Your task to perform on an android device: open app "Roku - Official Remote Control" Image 0: 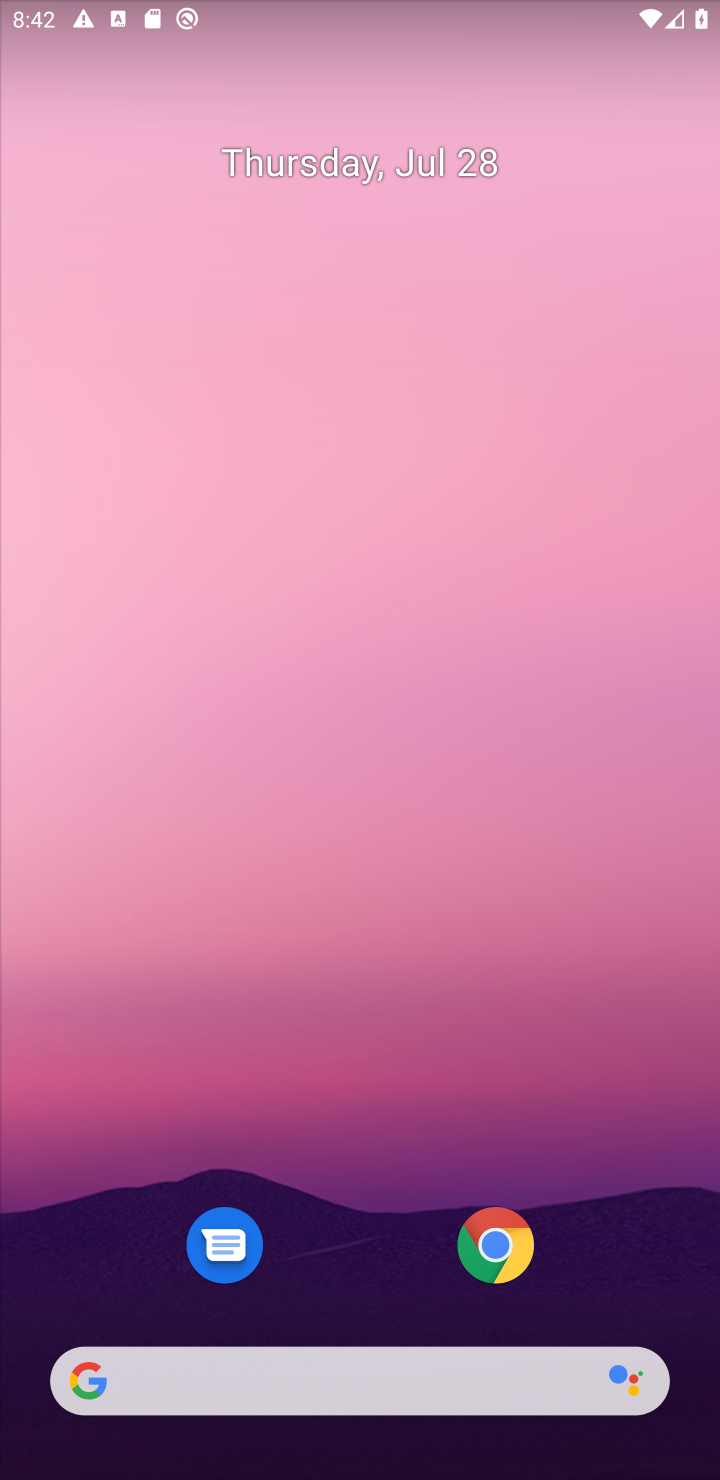
Step 0: drag from (350, 1257) to (566, 39)
Your task to perform on an android device: open app "Roku - Official Remote Control" Image 1: 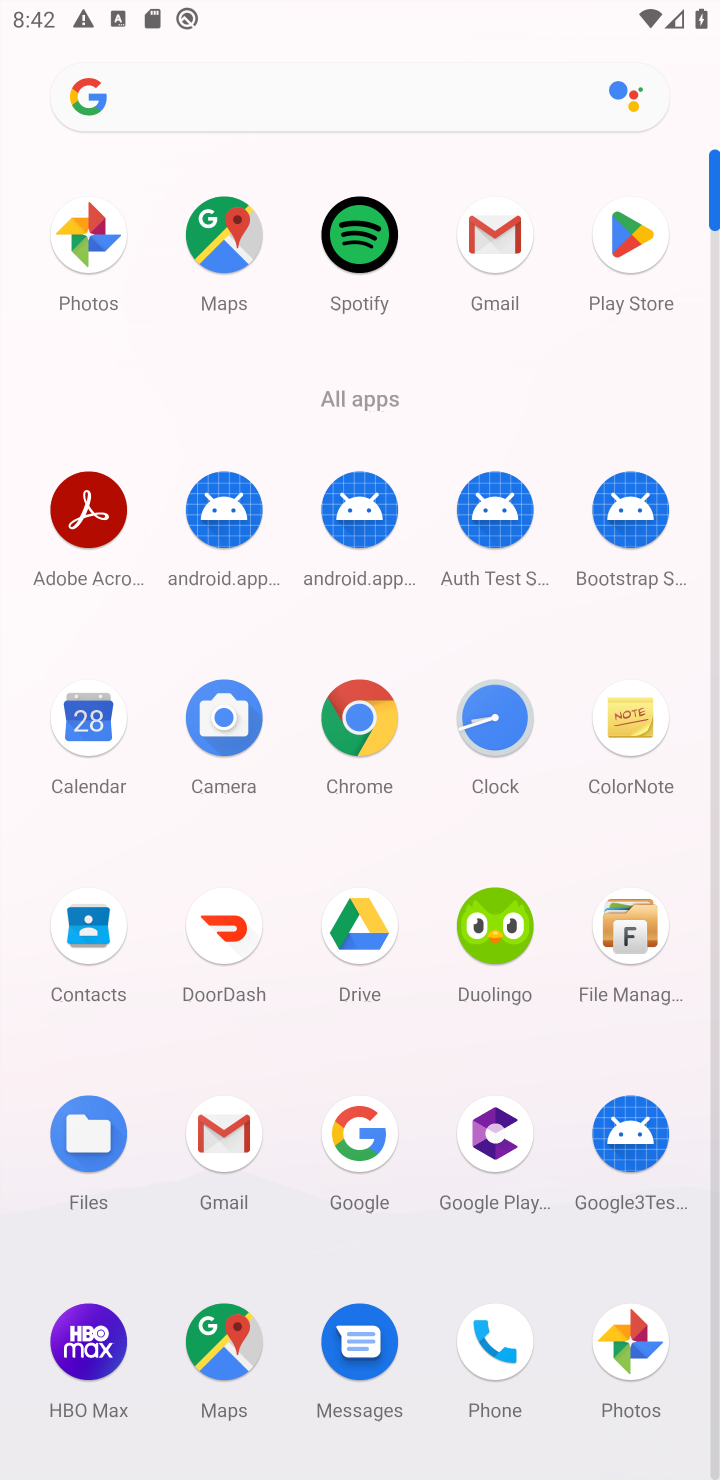
Step 1: click (634, 225)
Your task to perform on an android device: open app "Roku - Official Remote Control" Image 2: 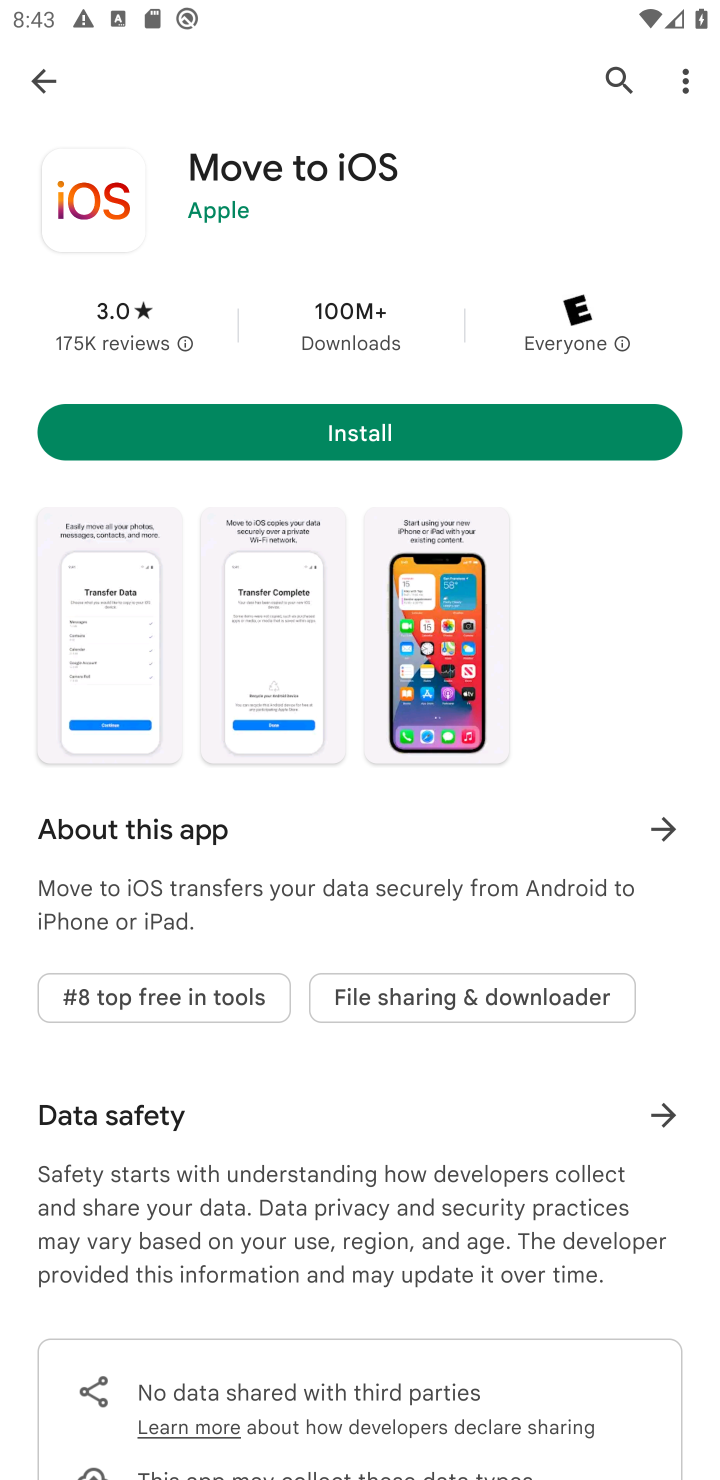
Step 2: click (598, 86)
Your task to perform on an android device: open app "Roku - Official Remote Control" Image 3: 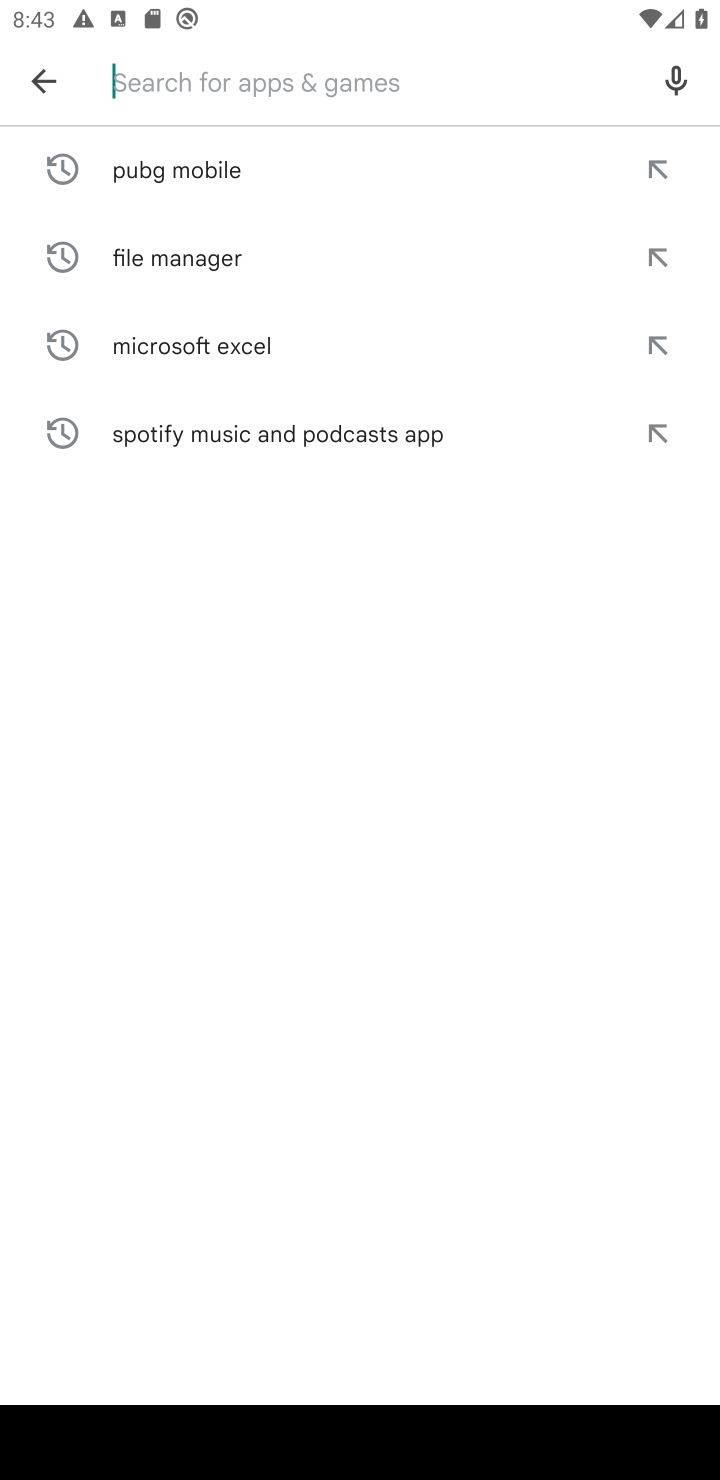
Step 3: type "Roku - Offical remote control"
Your task to perform on an android device: open app "Roku - Official Remote Control" Image 4: 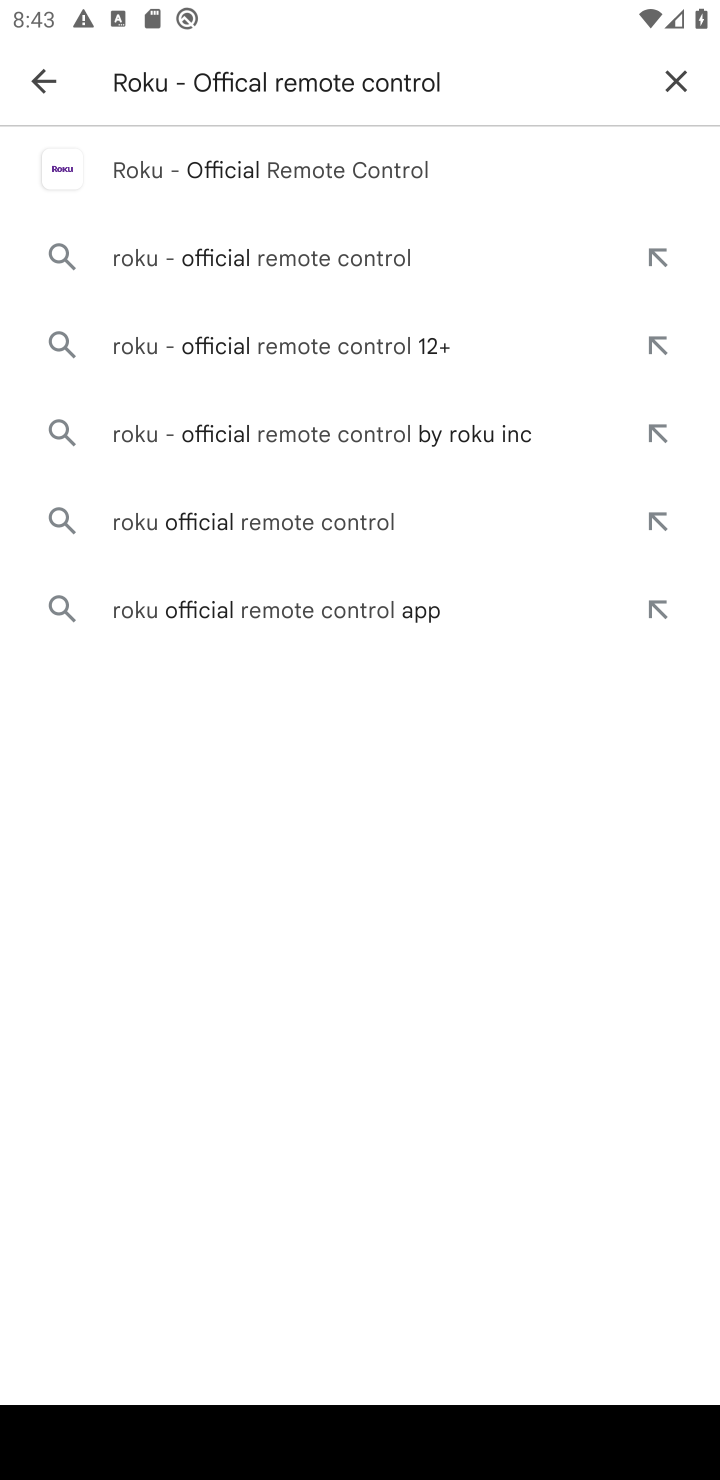
Step 4: click (402, 163)
Your task to perform on an android device: open app "Roku - Official Remote Control" Image 5: 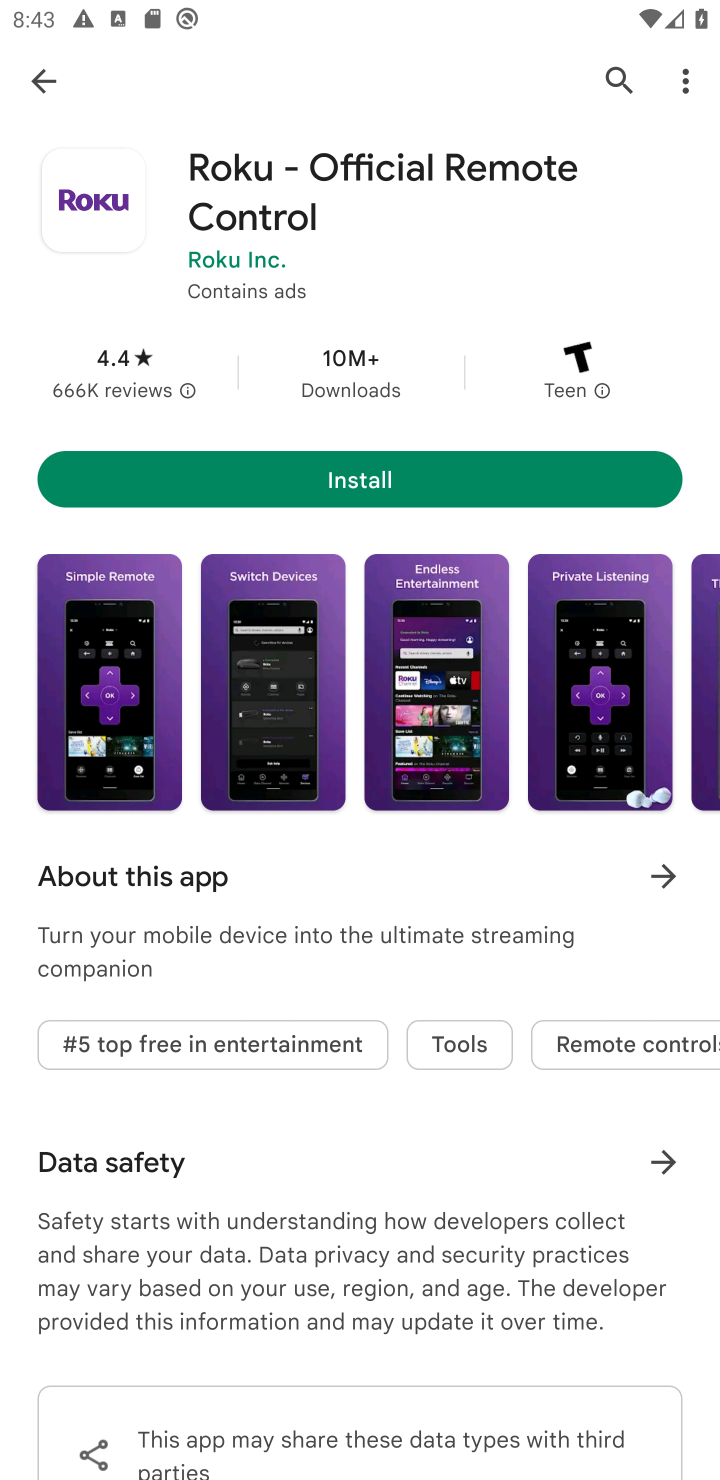
Step 5: task complete